Your task to perform on an android device: Open location settings Image 0: 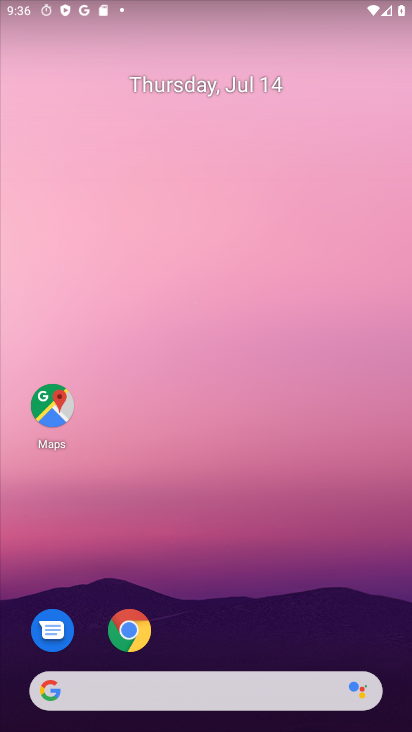
Step 0: drag from (85, 629) to (314, 46)
Your task to perform on an android device: Open location settings Image 1: 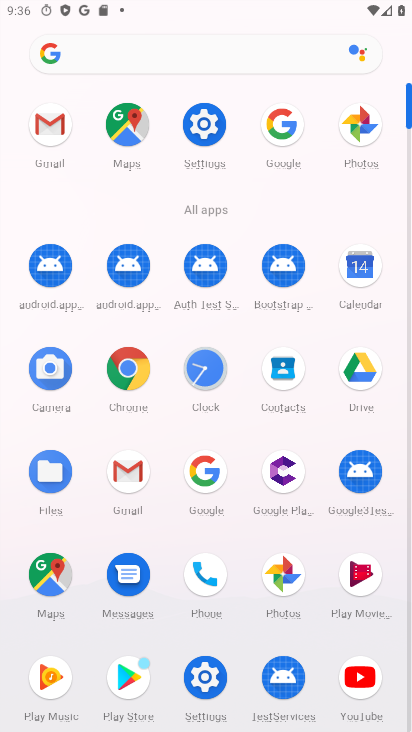
Step 1: click (200, 677)
Your task to perform on an android device: Open location settings Image 2: 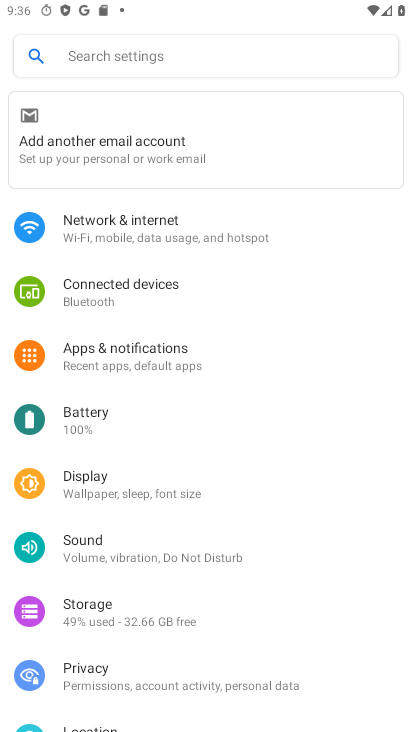
Step 2: drag from (354, 682) to (358, 277)
Your task to perform on an android device: Open location settings Image 3: 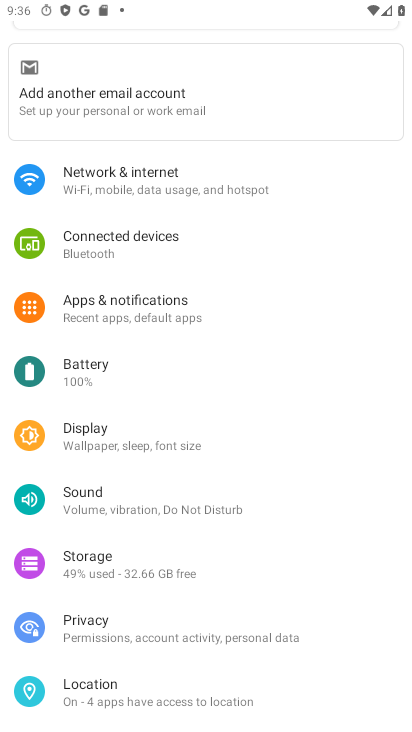
Step 3: click (107, 690)
Your task to perform on an android device: Open location settings Image 4: 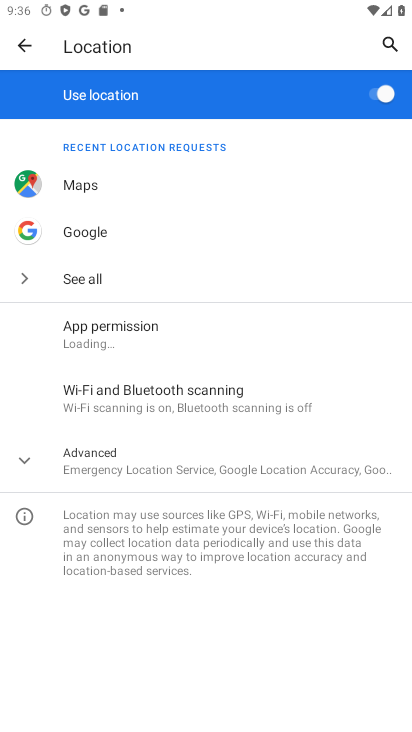
Step 4: task complete